Your task to perform on an android device: Do I have any events tomorrow? Image 0: 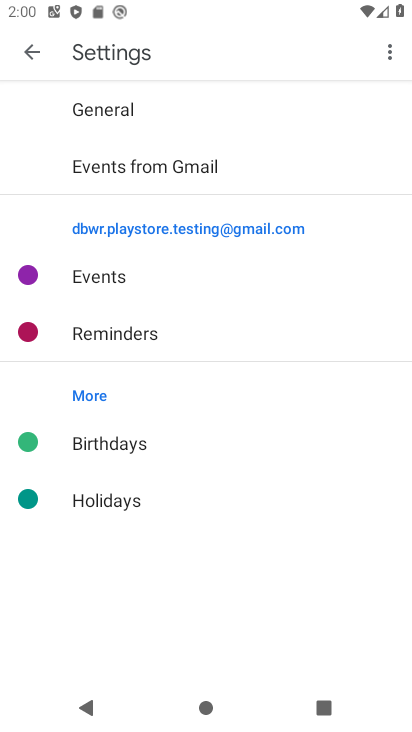
Step 0: press home button
Your task to perform on an android device: Do I have any events tomorrow? Image 1: 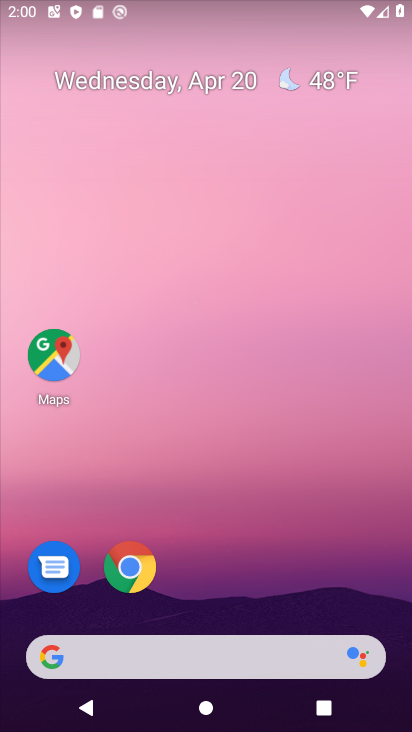
Step 1: drag from (290, 578) to (292, 191)
Your task to perform on an android device: Do I have any events tomorrow? Image 2: 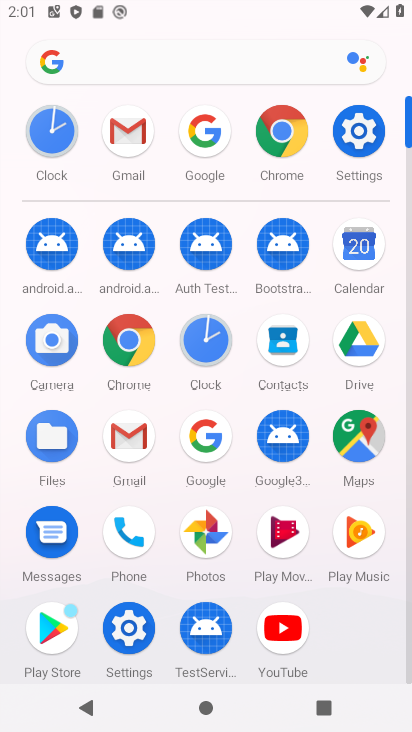
Step 2: click (361, 250)
Your task to perform on an android device: Do I have any events tomorrow? Image 3: 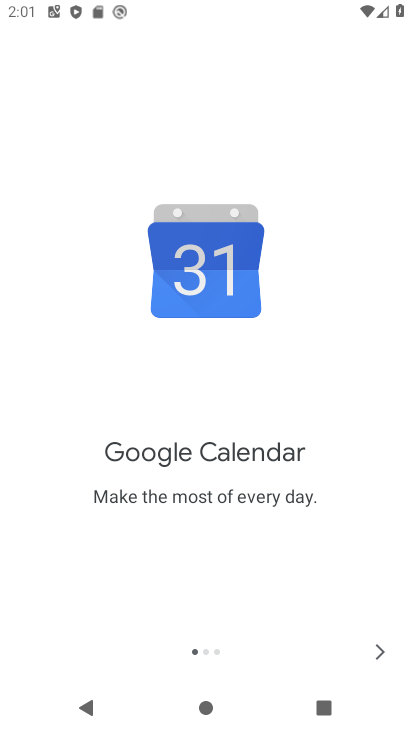
Step 3: click (365, 656)
Your task to perform on an android device: Do I have any events tomorrow? Image 4: 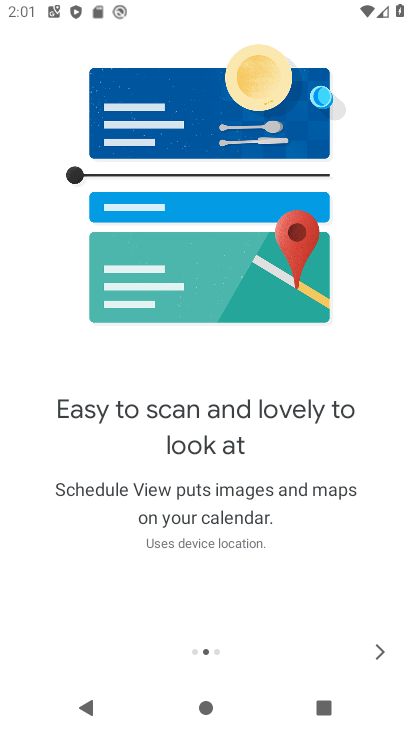
Step 4: click (368, 654)
Your task to perform on an android device: Do I have any events tomorrow? Image 5: 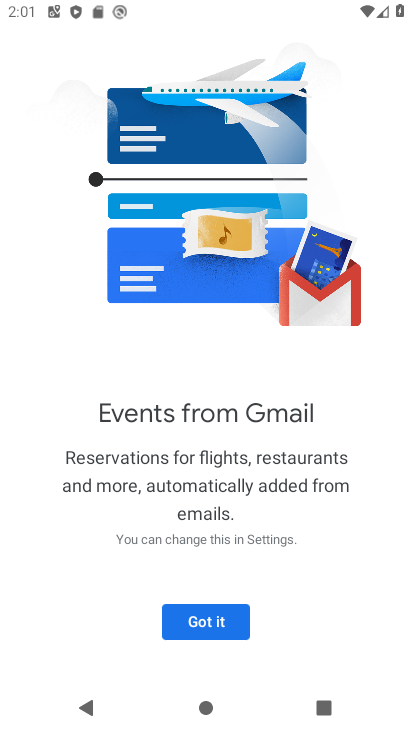
Step 5: click (221, 623)
Your task to perform on an android device: Do I have any events tomorrow? Image 6: 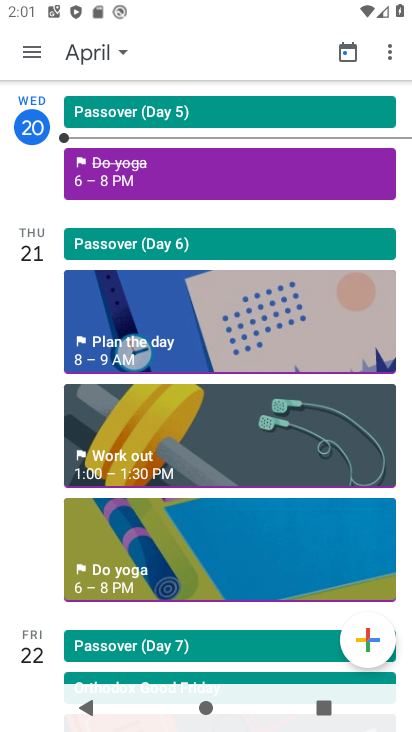
Step 6: task complete